Your task to perform on an android device: uninstall "Upside-Cash back on gas & food" Image 0: 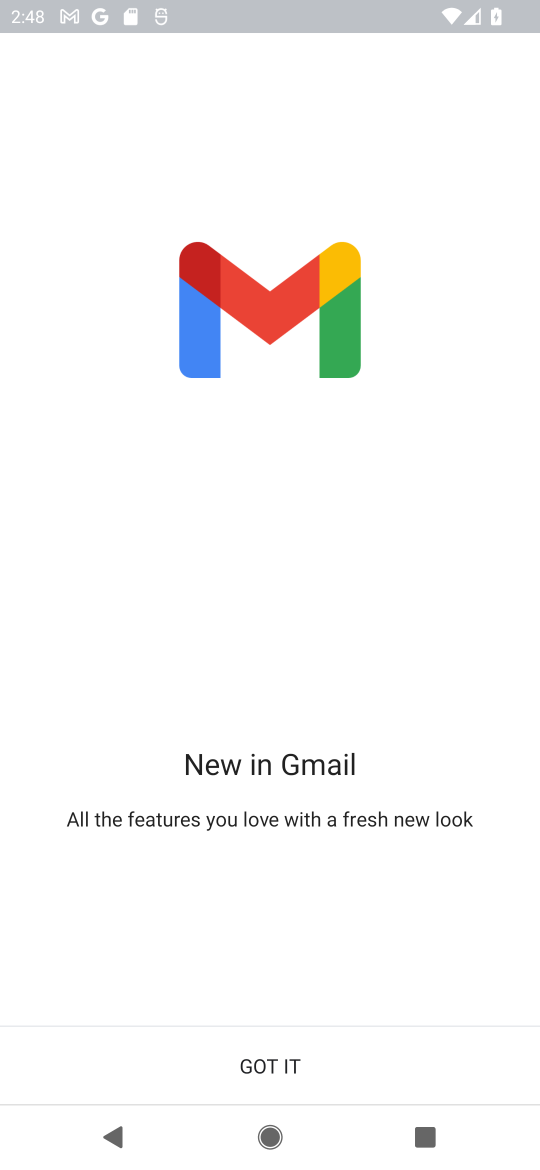
Step 0: press home button
Your task to perform on an android device: uninstall "Upside-Cash back on gas & food" Image 1: 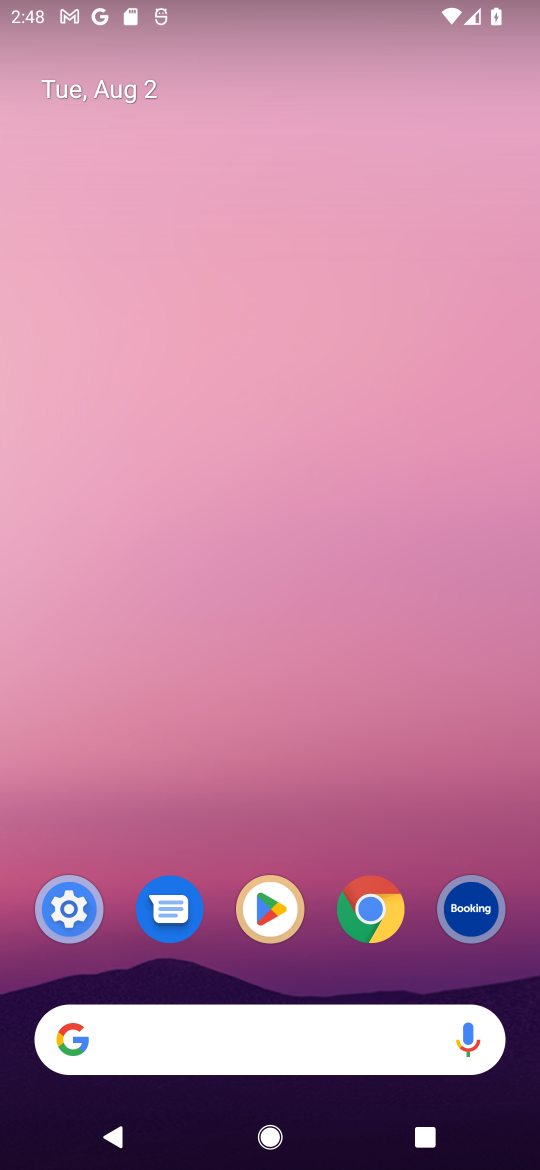
Step 1: drag from (218, 936) to (355, 299)
Your task to perform on an android device: uninstall "Upside-Cash back on gas & food" Image 2: 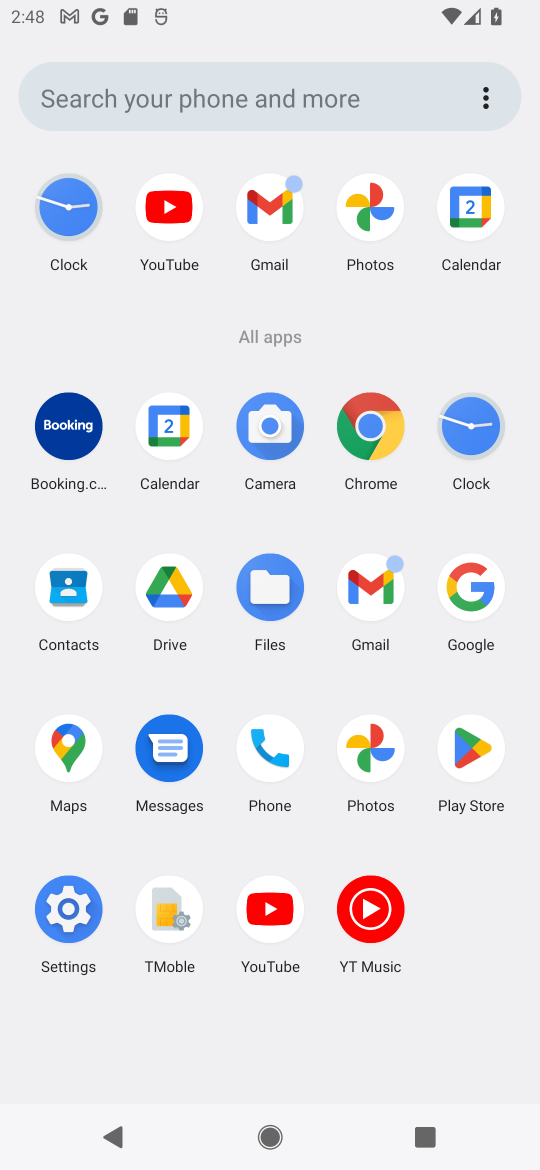
Step 2: click (455, 736)
Your task to perform on an android device: uninstall "Upside-Cash back on gas & food" Image 3: 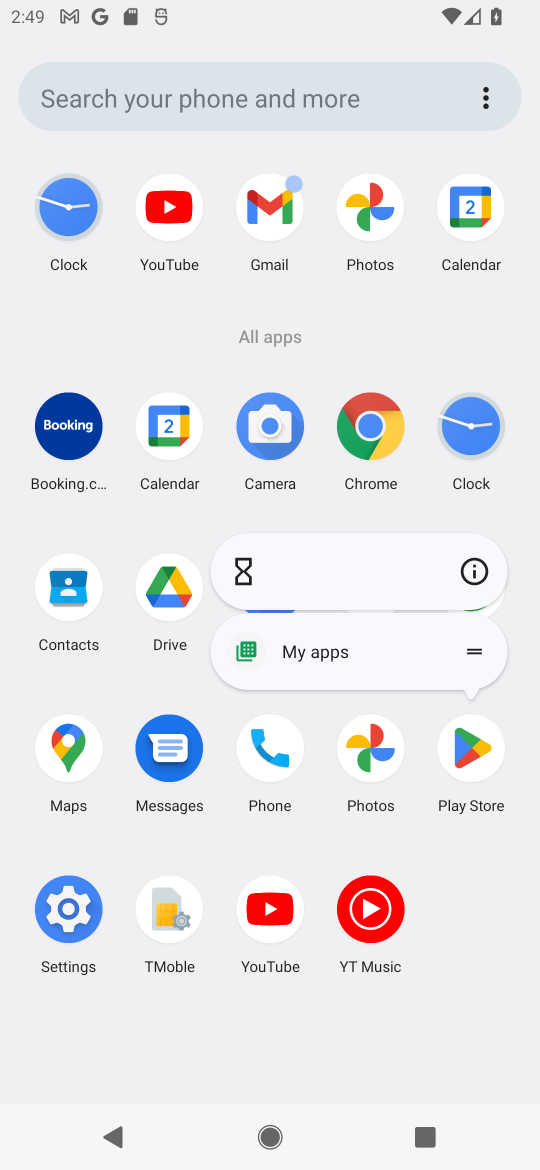
Step 3: click (471, 564)
Your task to perform on an android device: uninstall "Upside-Cash back on gas & food" Image 4: 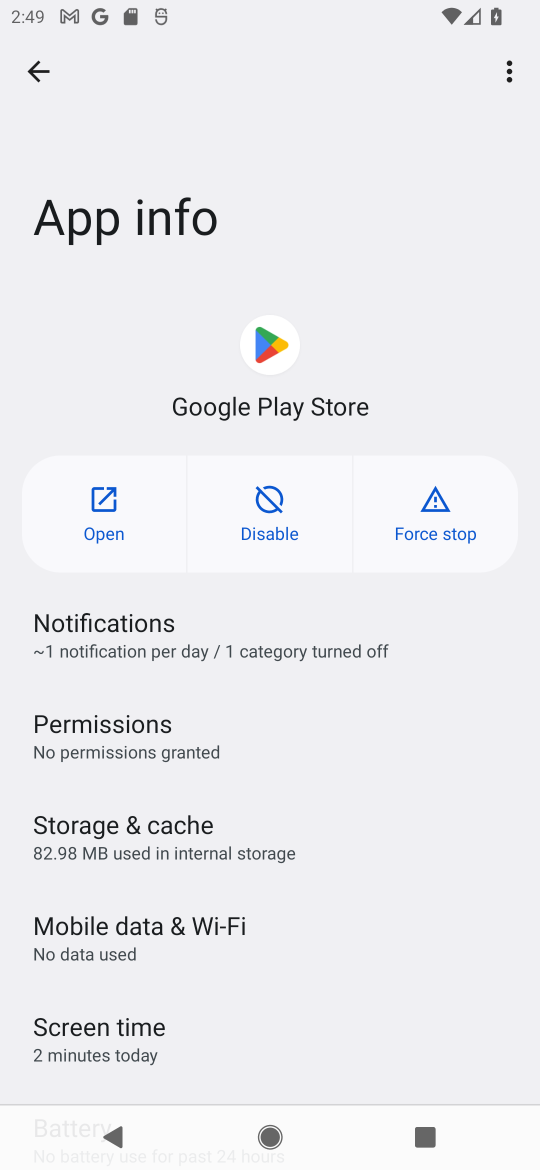
Step 4: click (121, 525)
Your task to perform on an android device: uninstall "Upside-Cash back on gas & food" Image 5: 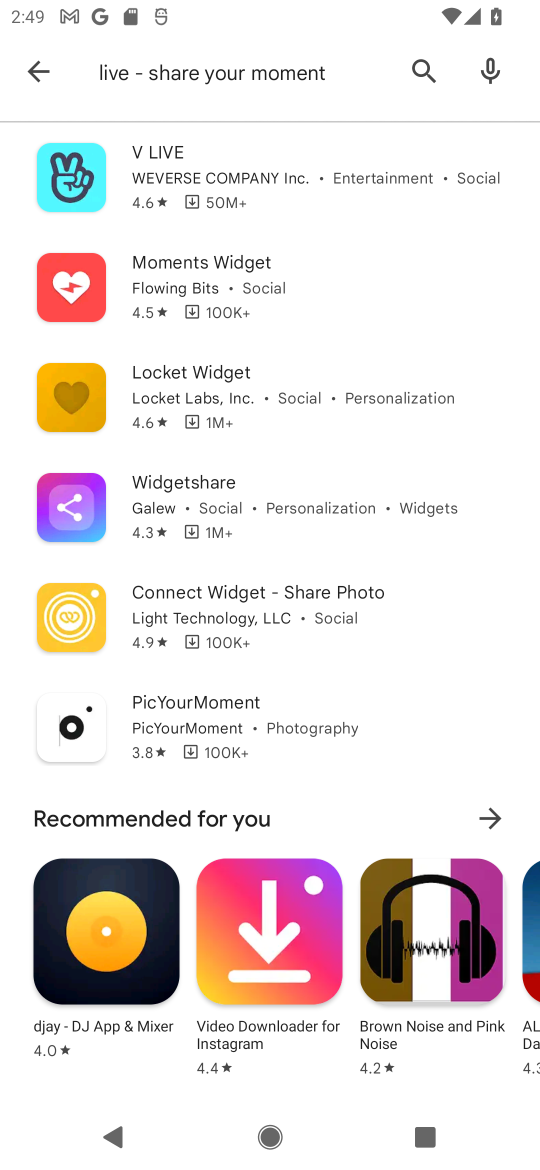
Step 5: click (422, 72)
Your task to perform on an android device: uninstall "Upside-Cash back on gas & food" Image 6: 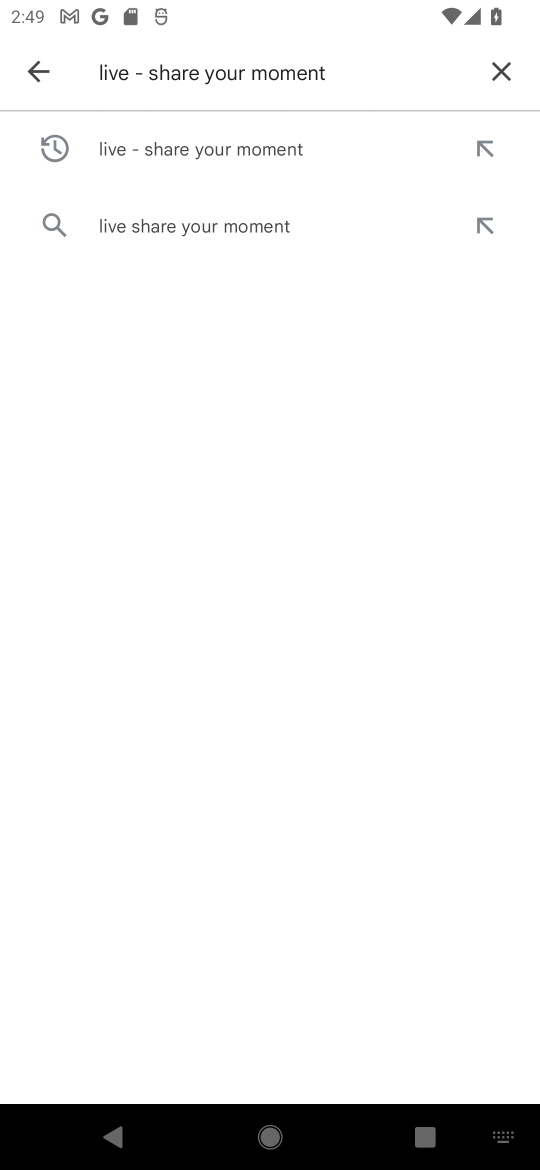
Step 6: click (509, 82)
Your task to perform on an android device: uninstall "Upside-Cash back on gas & food" Image 7: 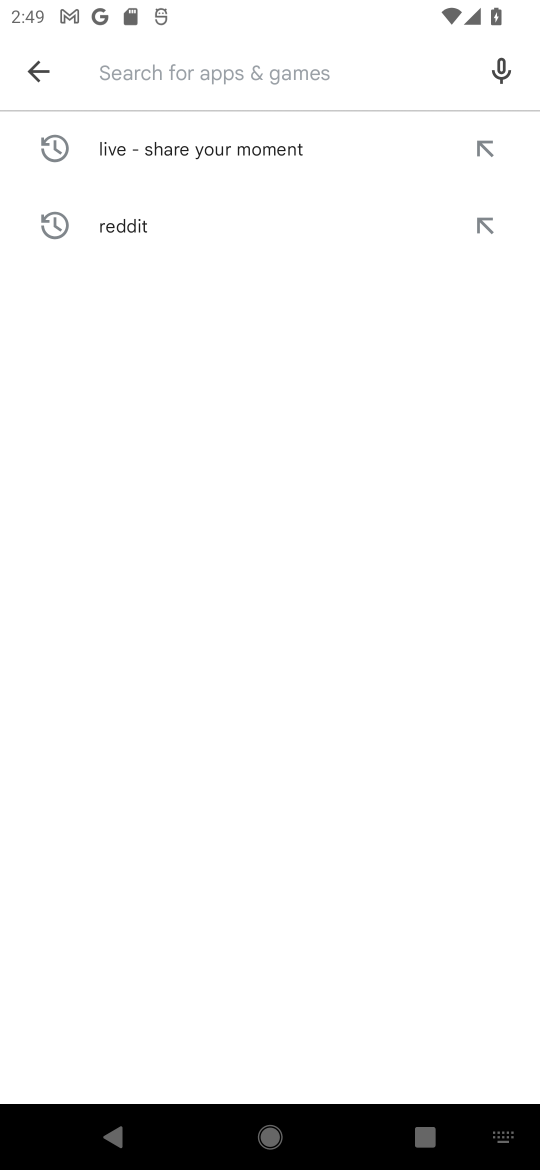
Step 7: click (117, 78)
Your task to perform on an android device: uninstall "Upside-Cash back on gas & food" Image 8: 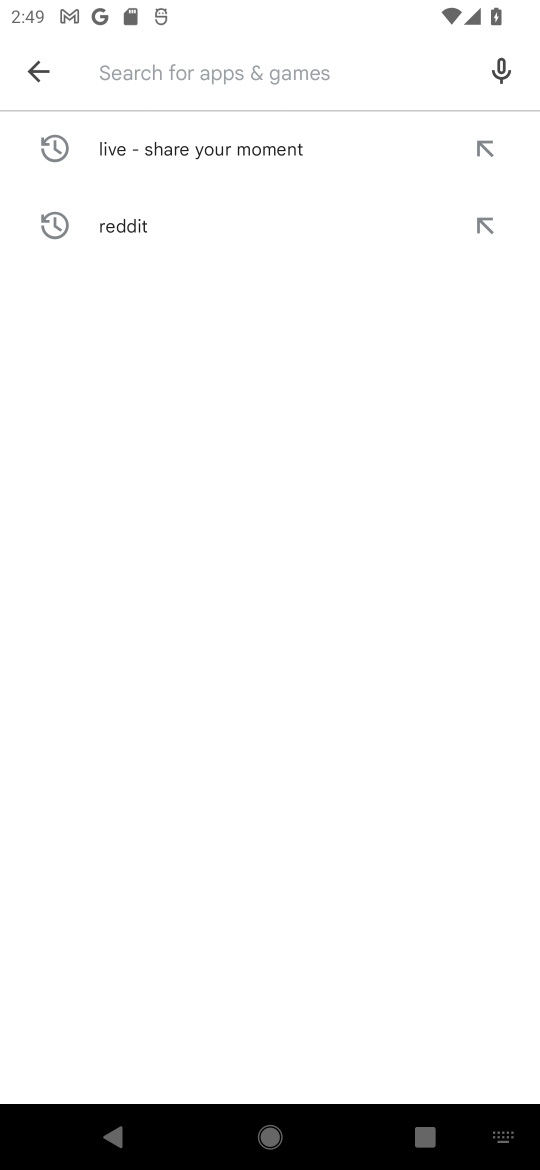
Step 8: type "Upside-Cash back on gas & food"
Your task to perform on an android device: uninstall "Upside-Cash back on gas & food" Image 9: 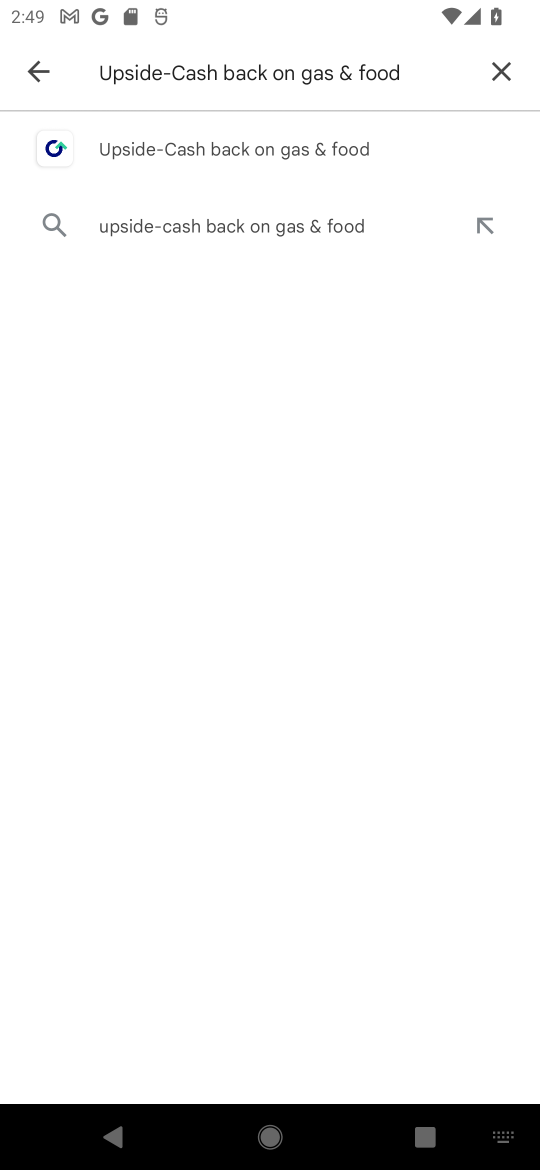
Step 9: click (109, 155)
Your task to perform on an android device: uninstall "Upside-Cash back on gas & food" Image 10: 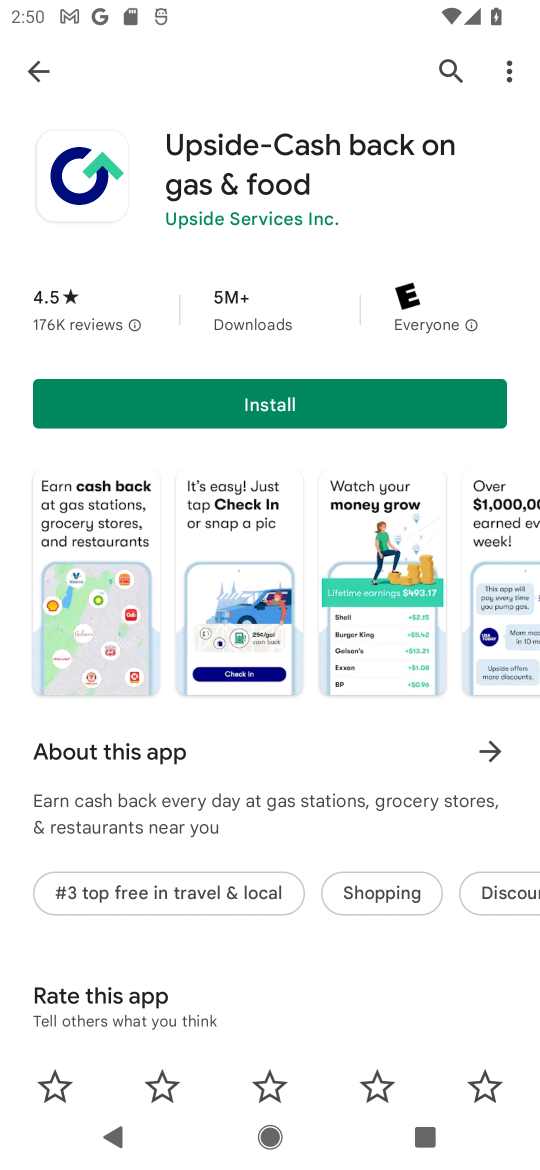
Step 10: task complete